Your task to perform on an android device: Open battery settings Image 0: 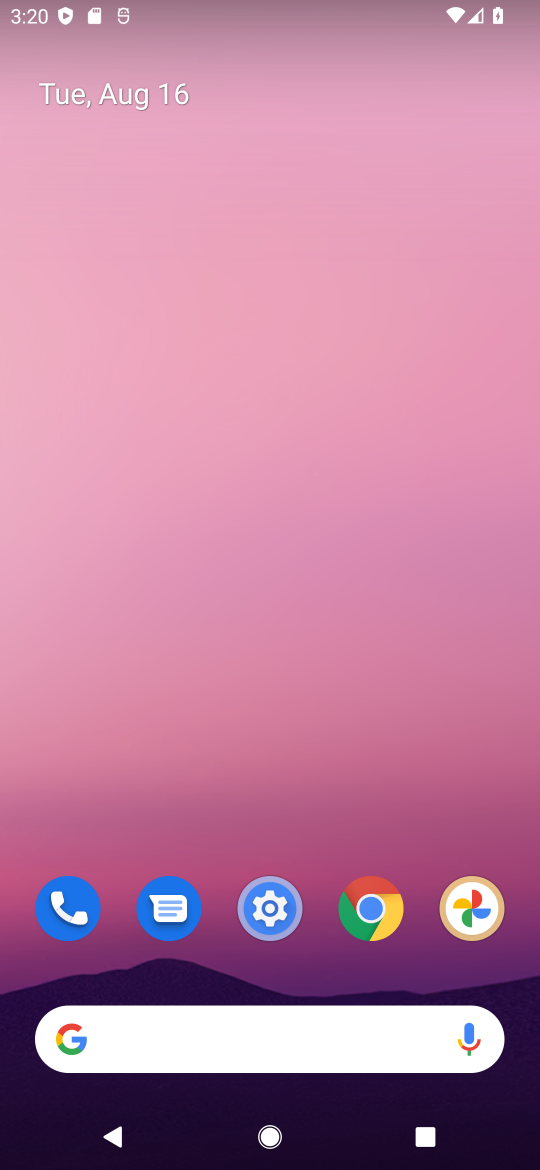
Step 0: click (266, 899)
Your task to perform on an android device: Open battery settings Image 1: 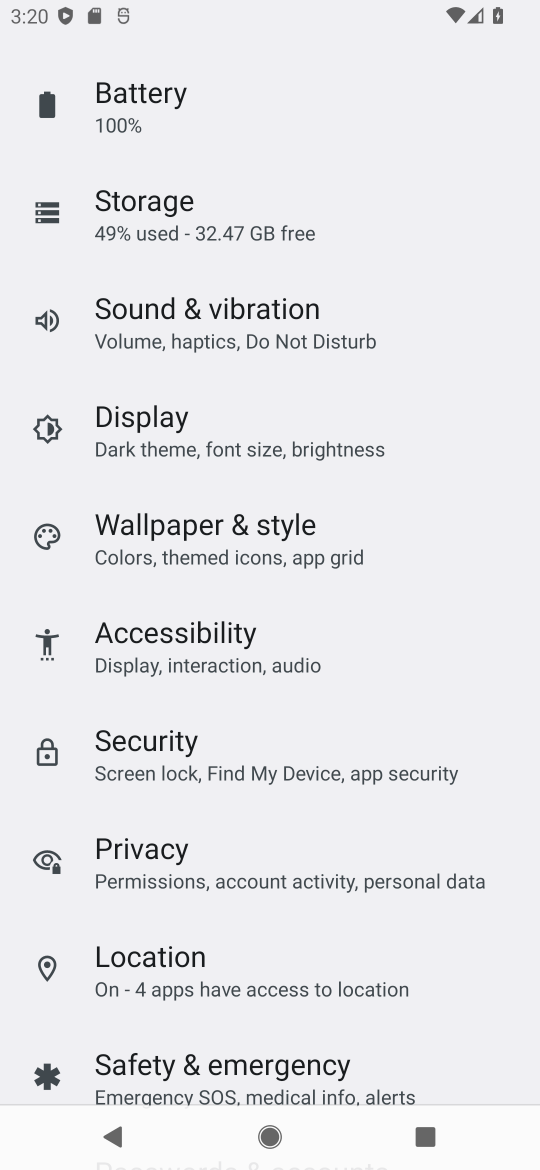
Step 1: click (205, 105)
Your task to perform on an android device: Open battery settings Image 2: 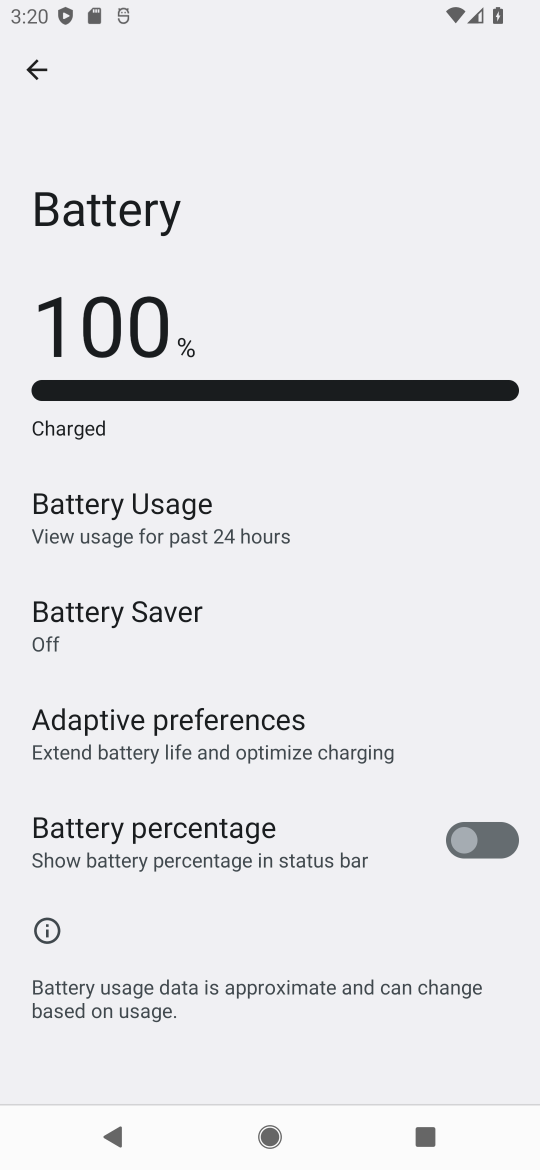
Step 2: task complete